Your task to perform on an android device: Go to network settings Image 0: 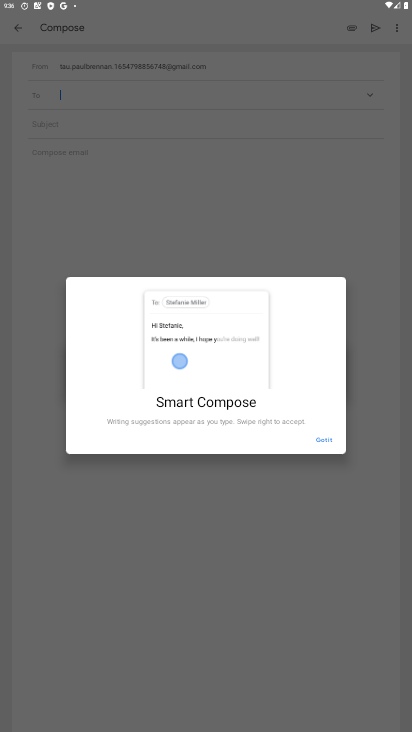
Step 0: press home button
Your task to perform on an android device: Go to network settings Image 1: 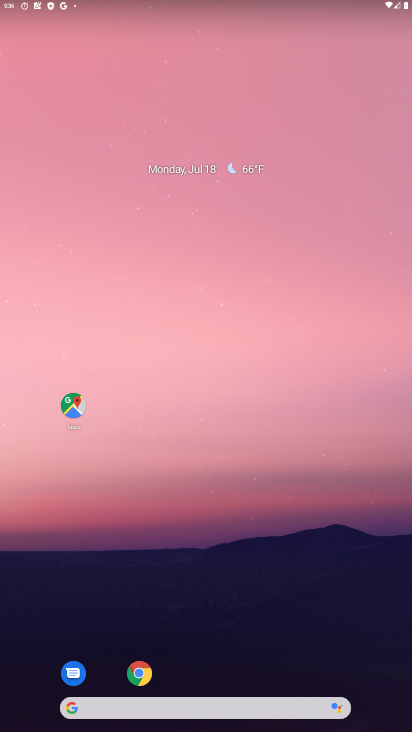
Step 1: drag from (223, 674) to (225, 86)
Your task to perform on an android device: Go to network settings Image 2: 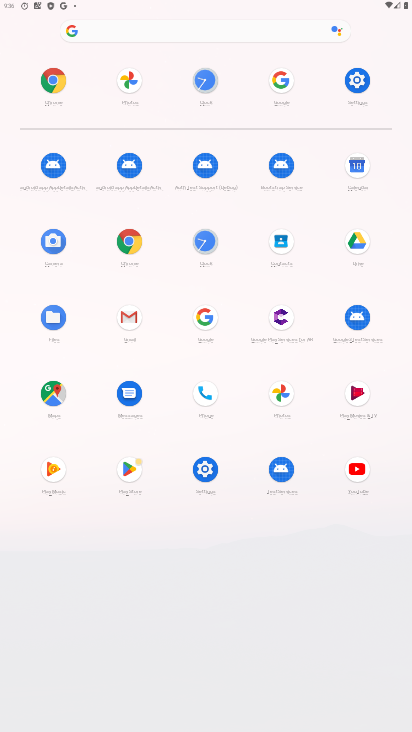
Step 2: click (357, 84)
Your task to perform on an android device: Go to network settings Image 3: 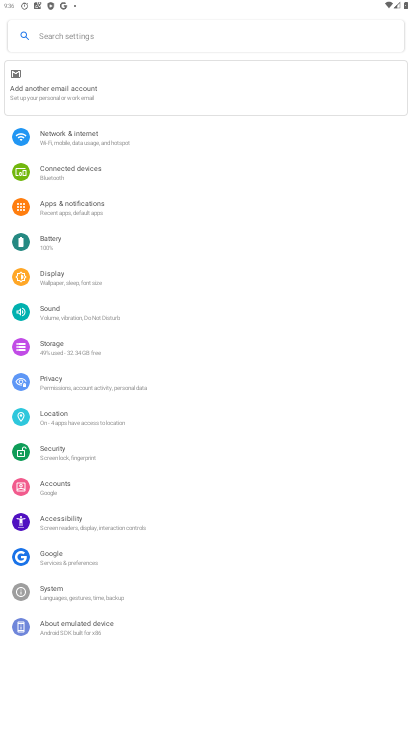
Step 3: click (79, 133)
Your task to perform on an android device: Go to network settings Image 4: 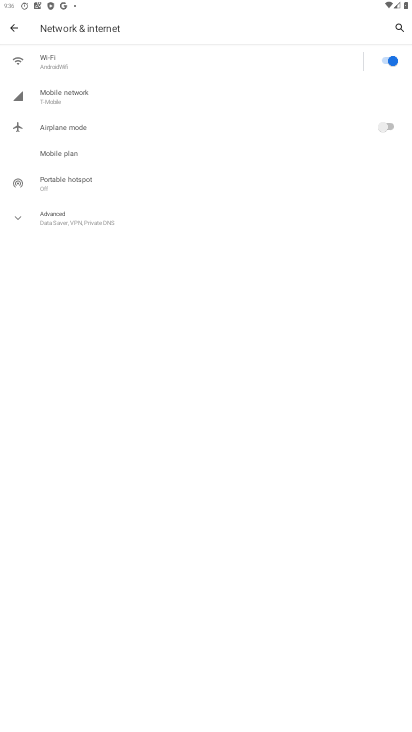
Step 4: click (102, 100)
Your task to perform on an android device: Go to network settings Image 5: 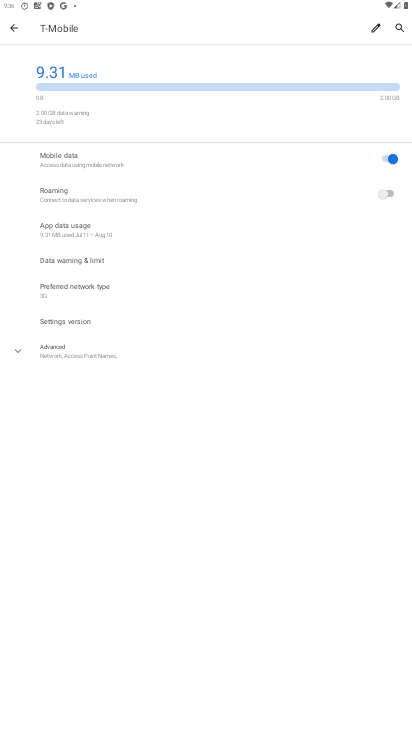
Step 5: task complete